Your task to perform on an android device: Open calendar and show me the third week of next month Image 0: 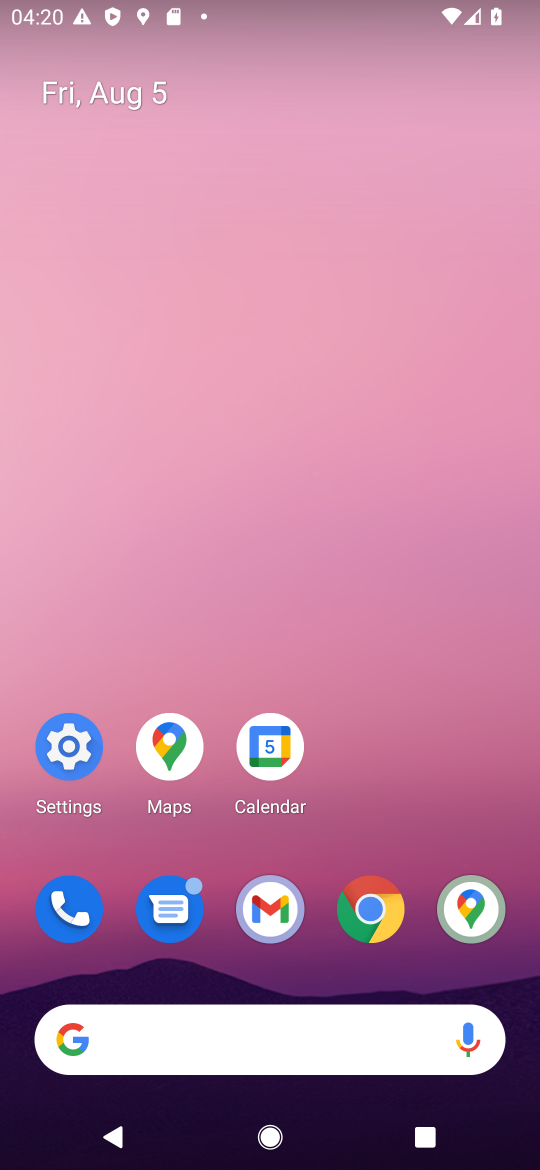
Step 0: click (274, 745)
Your task to perform on an android device: Open calendar and show me the third week of next month Image 1: 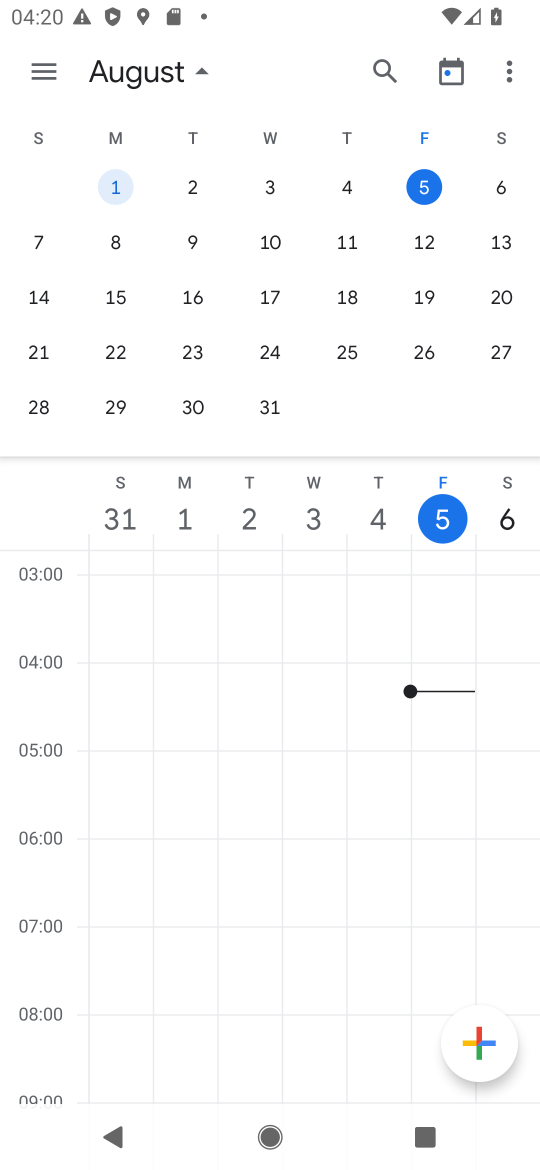
Step 1: drag from (475, 307) to (83, 307)
Your task to perform on an android device: Open calendar and show me the third week of next month Image 2: 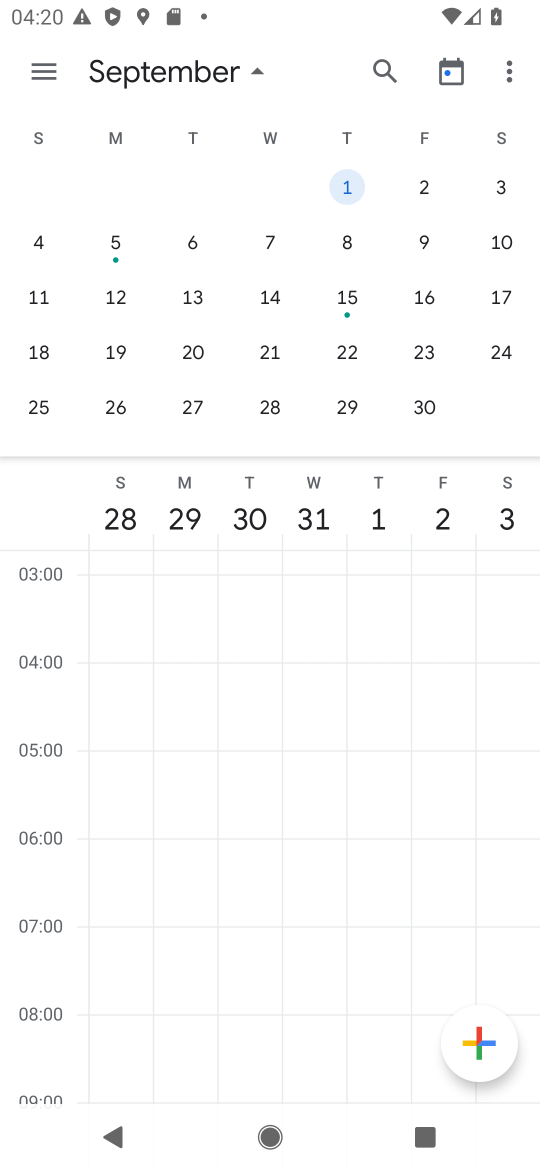
Step 2: click (272, 291)
Your task to perform on an android device: Open calendar and show me the third week of next month Image 3: 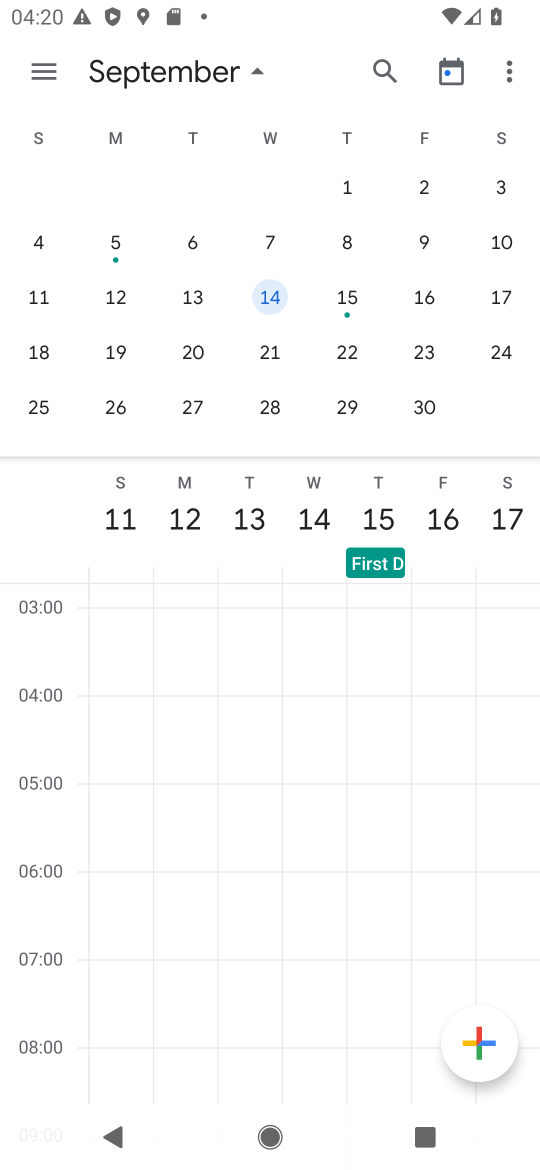
Step 3: task complete